Your task to perform on an android device: Open location settings Image 0: 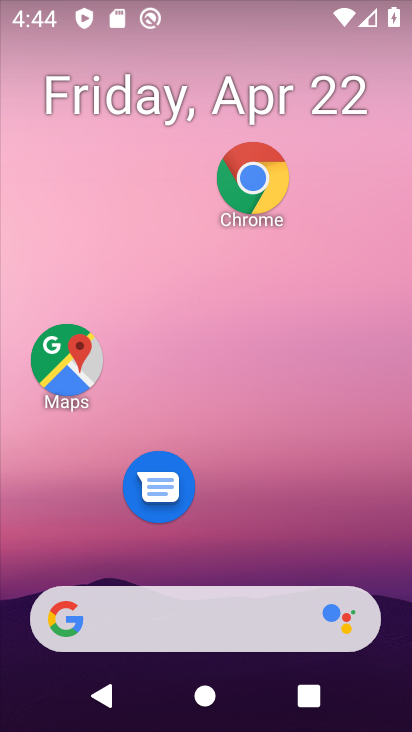
Step 0: drag from (219, 721) to (180, 79)
Your task to perform on an android device: Open location settings Image 1: 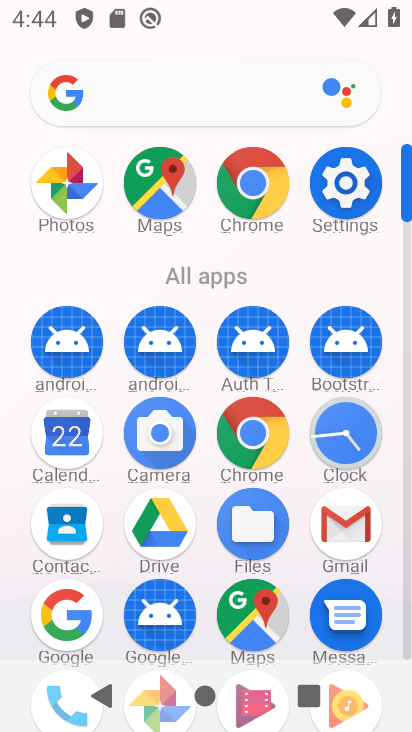
Step 1: click (354, 183)
Your task to perform on an android device: Open location settings Image 2: 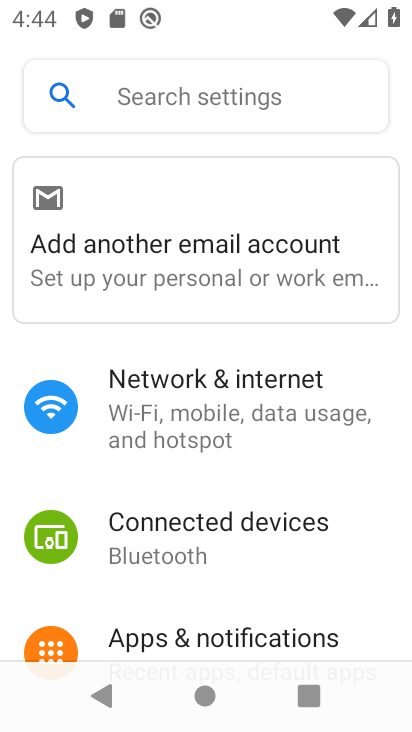
Step 2: drag from (194, 578) to (186, 238)
Your task to perform on an android device: Open location settings Image 3: 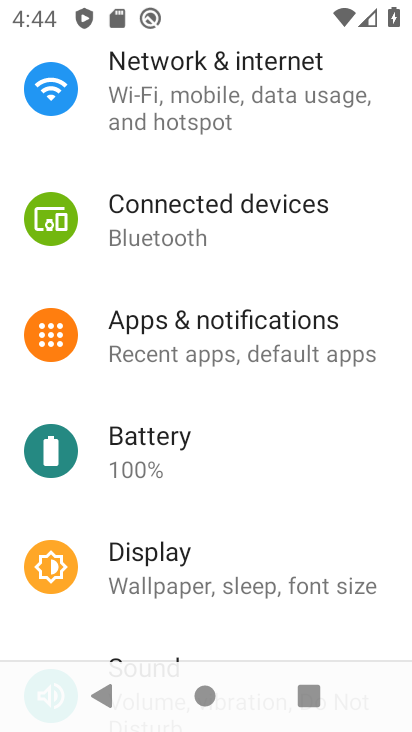
Step 3: drag from (164, 639) to (171, 199)
Your task to perform on an android device: Open location settings Image 4: 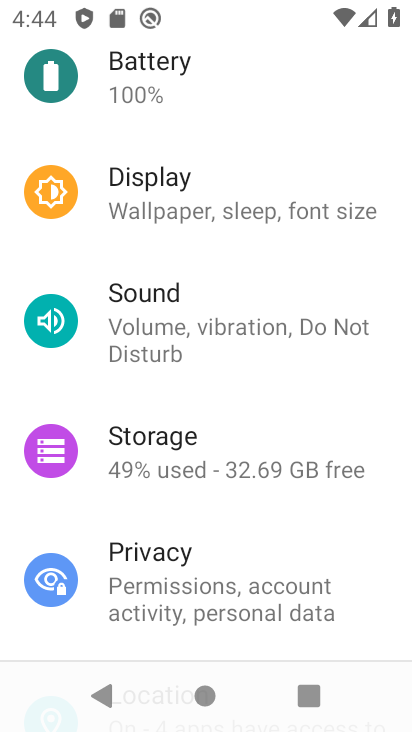
Step 4: drag from (188, 633) to (183, 216)
Your task to perform on an android device: Open location settings Image 5: 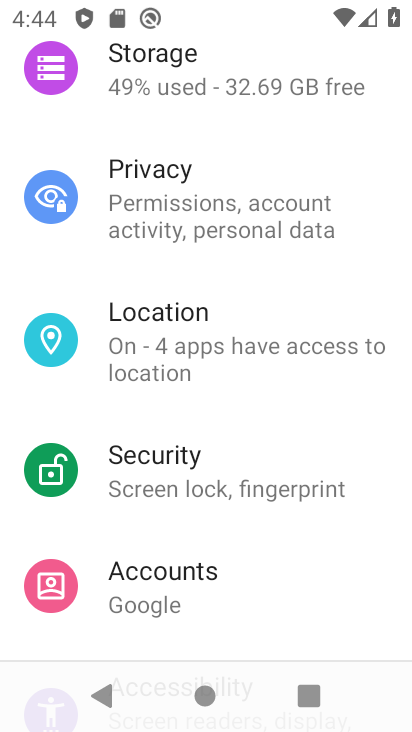
Step 5: click (159, 358)
Your task to perform on an android device: Open location settings Image 6: 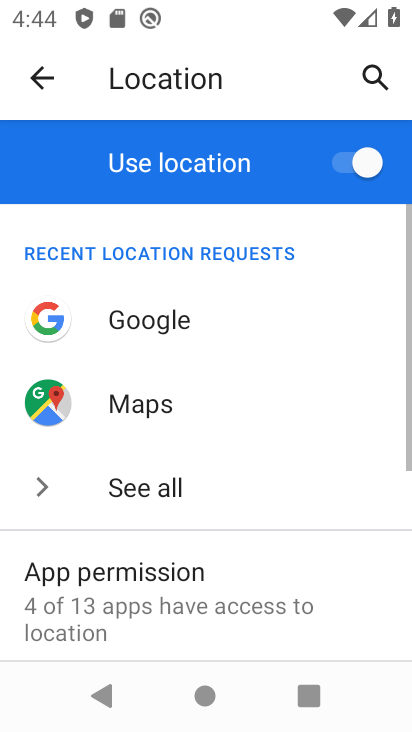
Step 6: task complete